Your task to perform on an android device: add a label to a message in the gmail app Image 0: 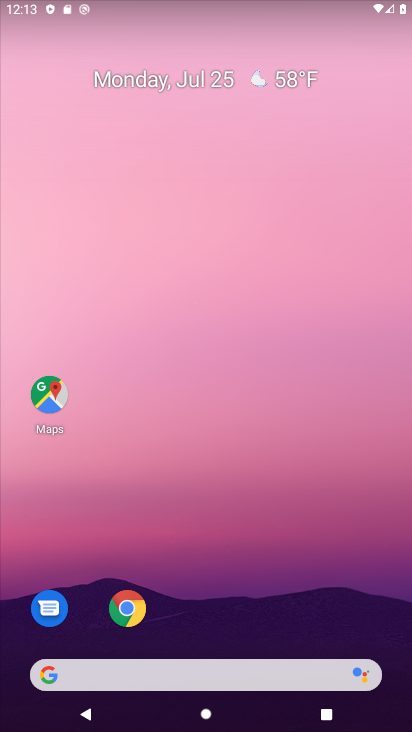
Step 0: drag from (288, 611) to (263, 68)
Your task to perform on an android device: add a label to a message in the gmail app Image 1: 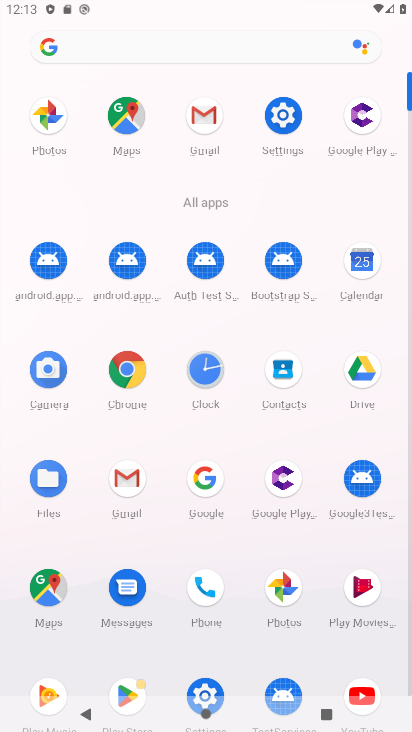
Step 1: click (216, 105)
Your task to perform on an android device: add a label to a message in the gmail app Image 2: 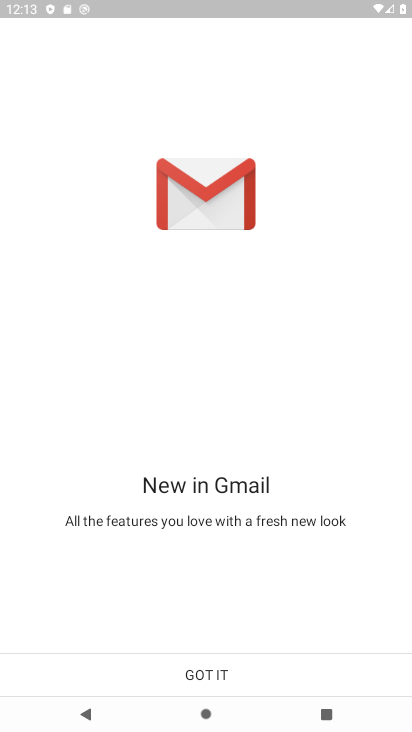
Step 2: click (234, 660)
Your task to perform on an android device: add a label to a message in the gmail app Image 3: 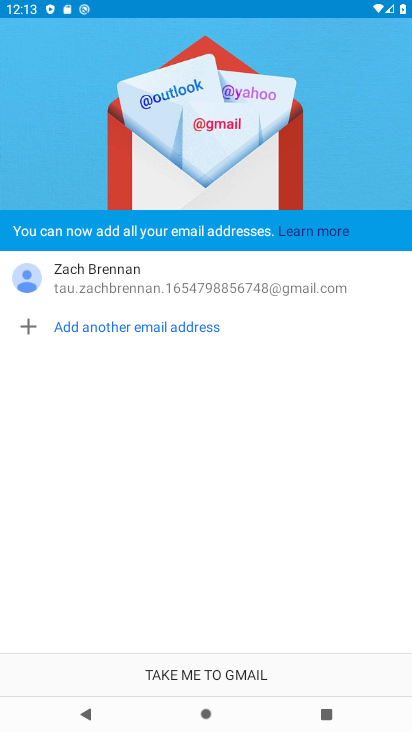
Step 3: click (234, 660)
Your task to perform on an android device: add a label to a message in the gmail app Image 4: 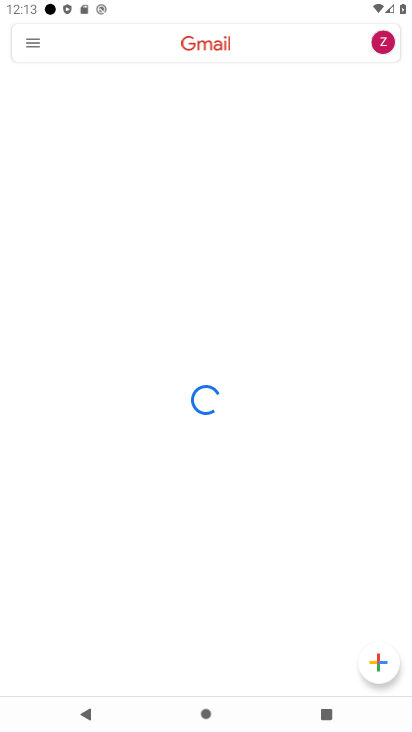
Step 4: click (43, 36)
Your task to perform on an android device: add a label to a message in the gmail app Image 5: 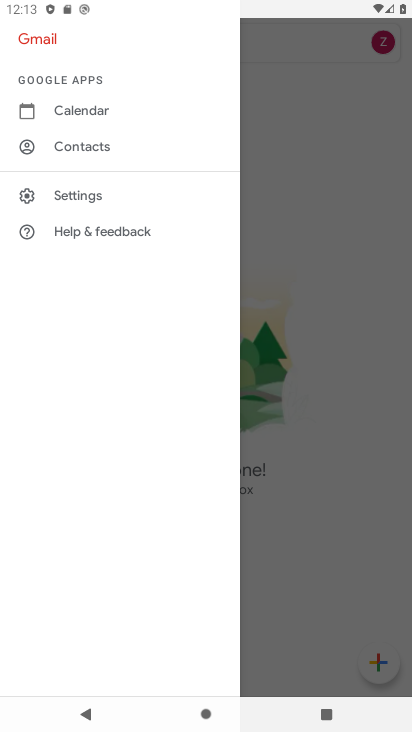
Step 5: click (323, 219)
Your task to perform on an android device: add a label to a message in the gmail app Image 6: 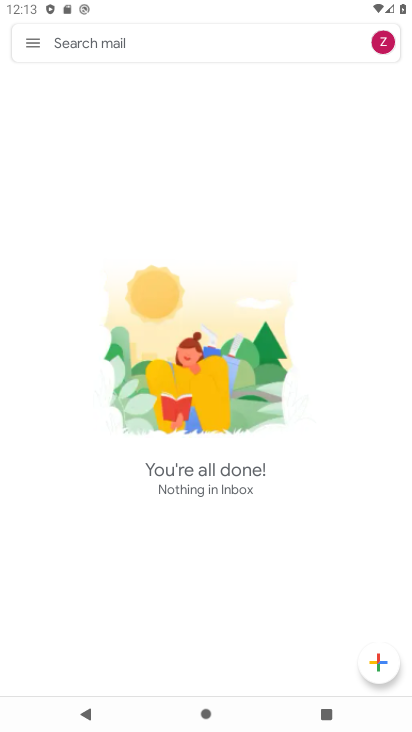
Step 6: click (41, 39)
Your task to perform on an android device: add a label to a message in the gmail app Image 7: 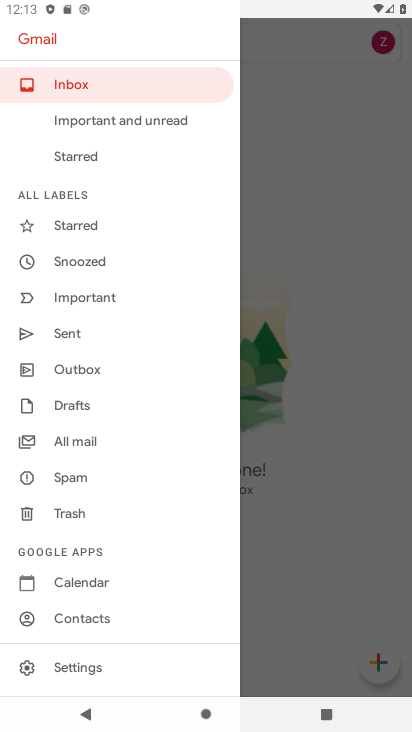
Step 7: click (106, 437)
Your task to perform on an android device: add a label to a message in the gmail app Image 8: 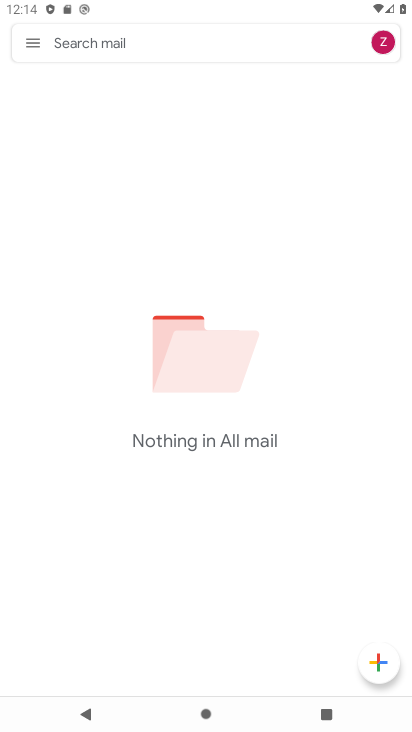
Step 8: task complete